Your task to perform on an android device: Open notification settings Image 0: 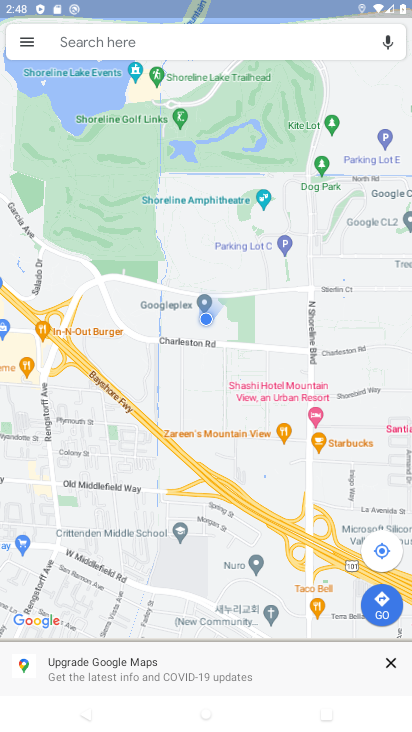
Step 0: press home button
Your task to perform on an android device: Open notification settings Image 1: 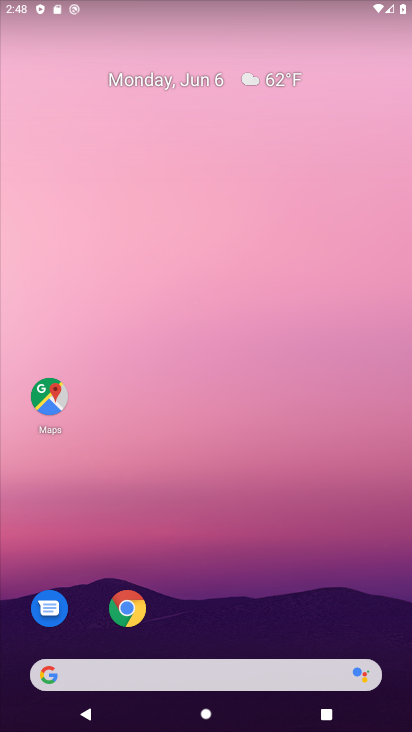
Step 1: drag from (315, 161) to (325, 55)
Your task to perform on an android device: Open notification settings Image 2: 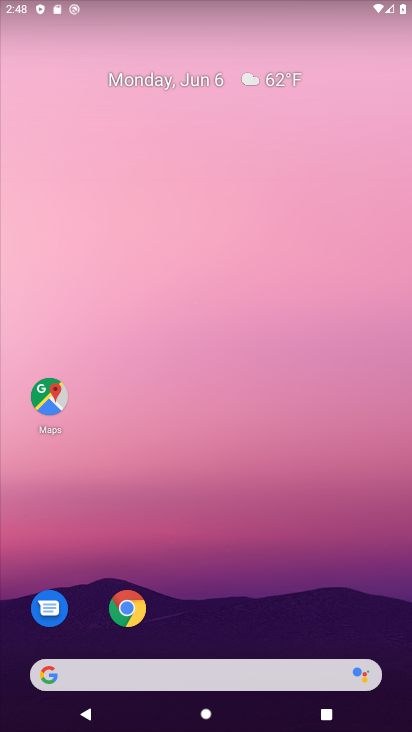
Step 2: drag from (225, 622) to (211, 9)
Your task to perform on an android device: Open notification settings Image 3: 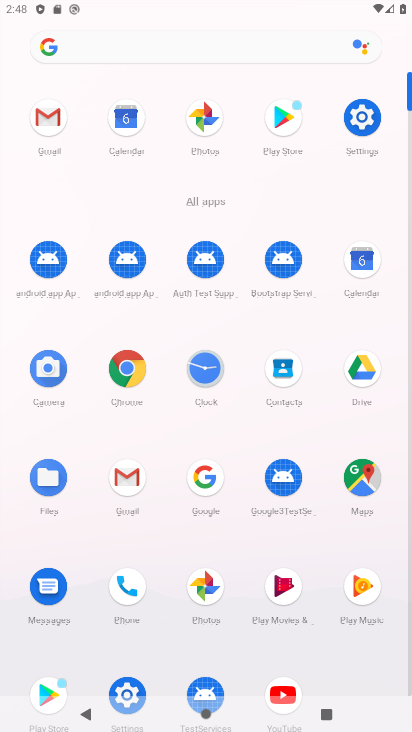
Step 3: click (359, 119)
Your task to perform on an android device: Open notification settings Image 4: 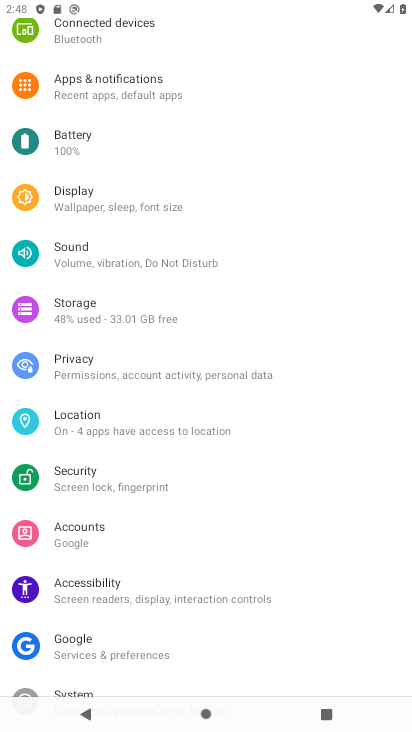
Step 4: click (133, 83)
Your task to perform on an android device: Open notification settings Image 5: 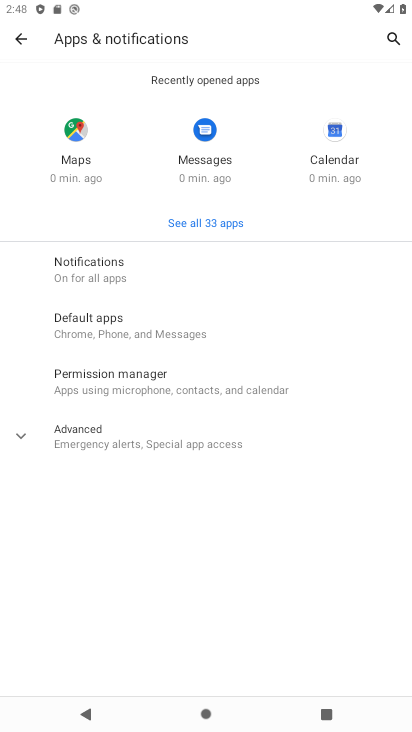
Step 5: click (162, 289)
Your task to perform on an android device: Open notification settings Image 6: 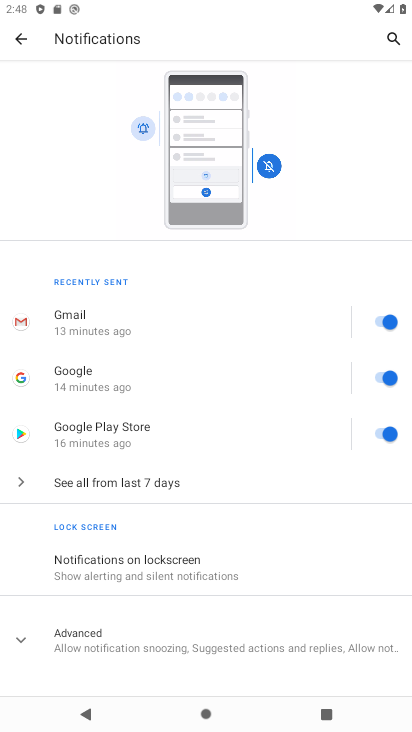
Step 6: task complete